Your task to perform on an android device: Open the calendar and show me this week's events? Image 0: 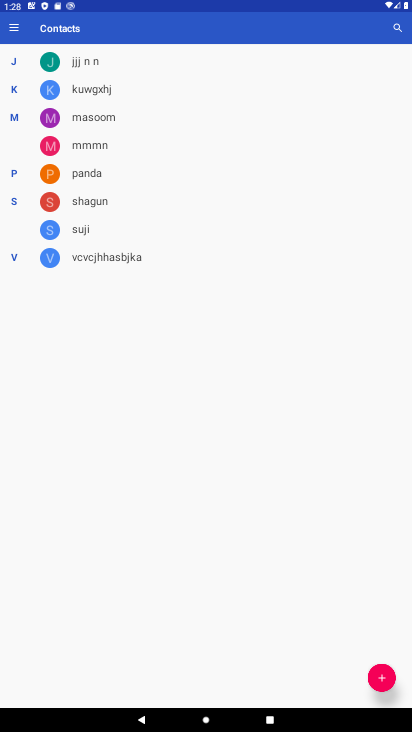
Step 0: press home button
Your task to perform on an android device: Open the calendar and show me this week's events? Image 1: 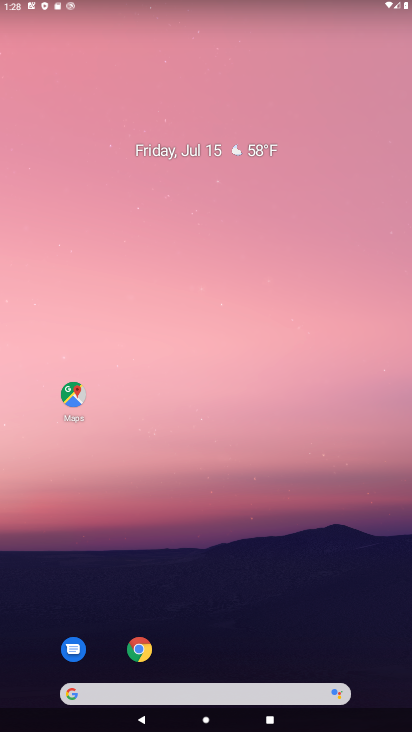
Step 1: drag from (269, 694) to (204, 152)
Your task to perform on an android device: Open the calendar and show me this week's events? Image 2: 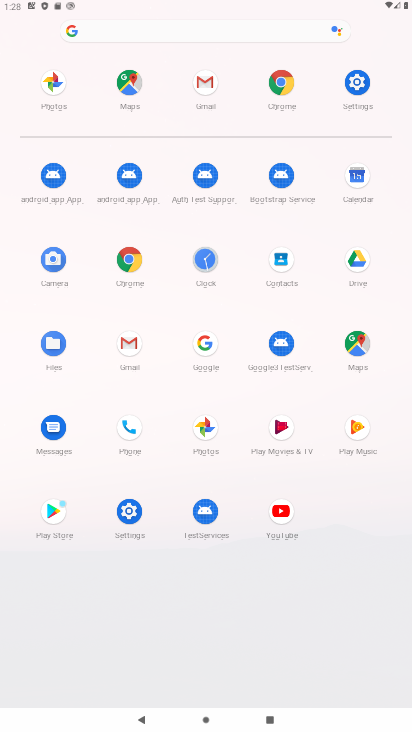
Step 2: click (365, 171)
Your task to perform on an android device: Open the calendar and show me this week's events? Image 3: 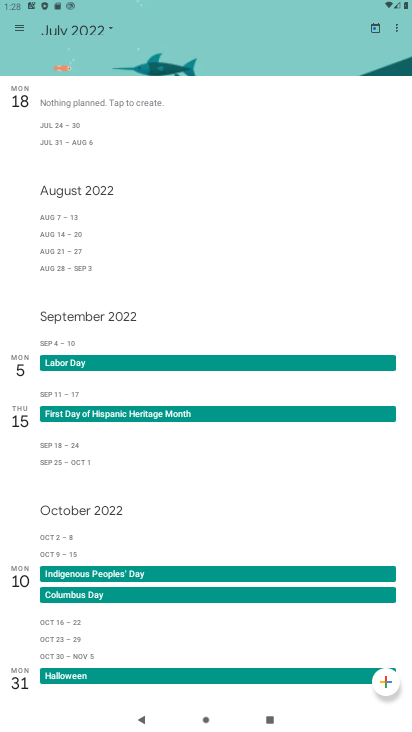
Step 3: click (103, 32)
Your task to perform on an android device: Open the calendar and show me this week's events? Image 4: 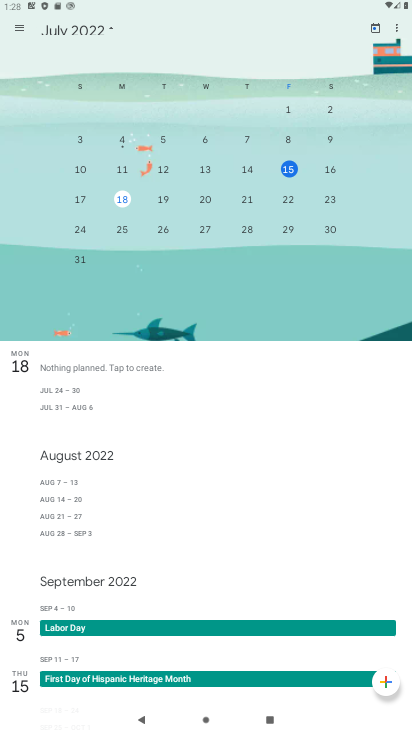
Step 4: drag from (351, 183) to (21, 331)
Your task to perform on an android device: Open the calendar and show me this week's events? Image 5: 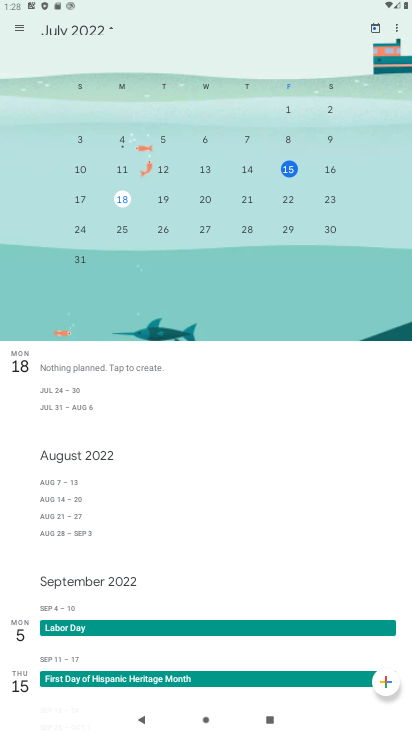
Step 5: drag from (322, 226) to (23, 254)
Your task to perform on an android device: Open the calendar and show me this week's events? Image 6: 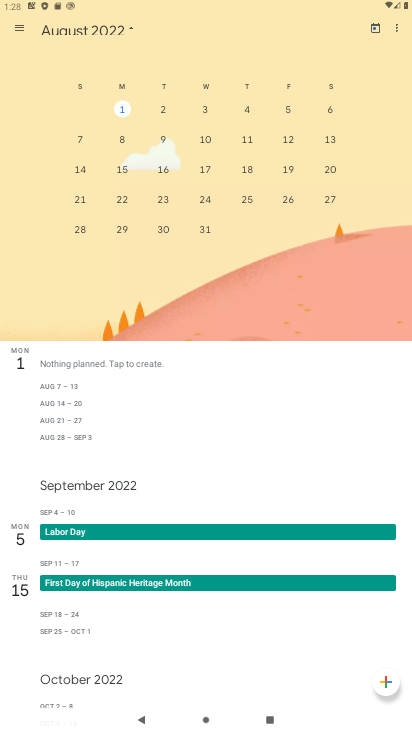
Step 6: drag from (72, 213) to (353, 210)
Your task to perform on an android device: Open the calendar and show me this week's events? Image 7: 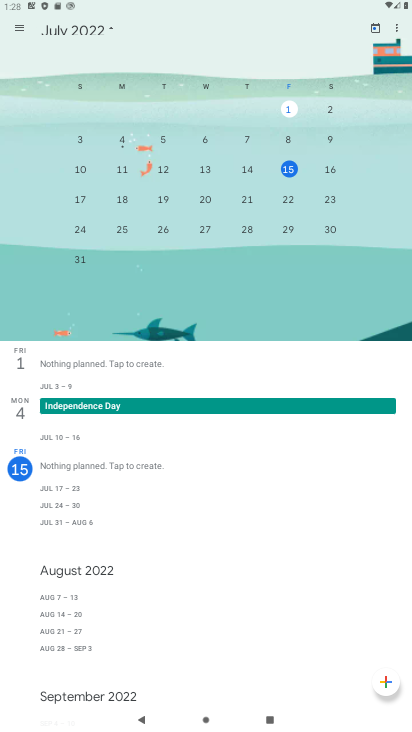
Step 7: click (10, 27)
Your task to perform on an android device: Open the calendar and show me this week's events? Image 8: 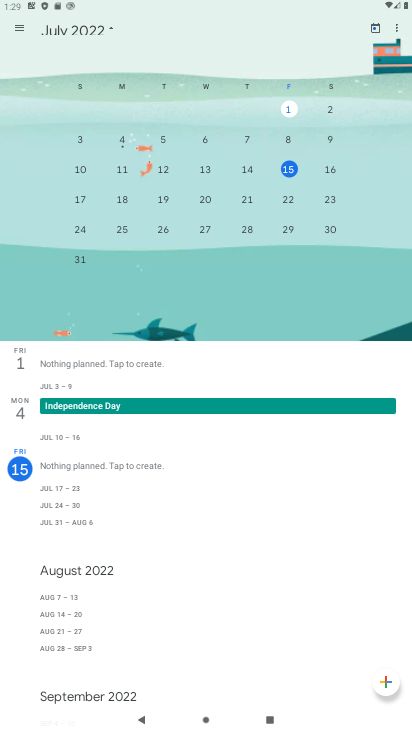
Step 8: click (19, 30)
Your task to perform on an android device: Open the calendar and show me this week's events? Image 9: 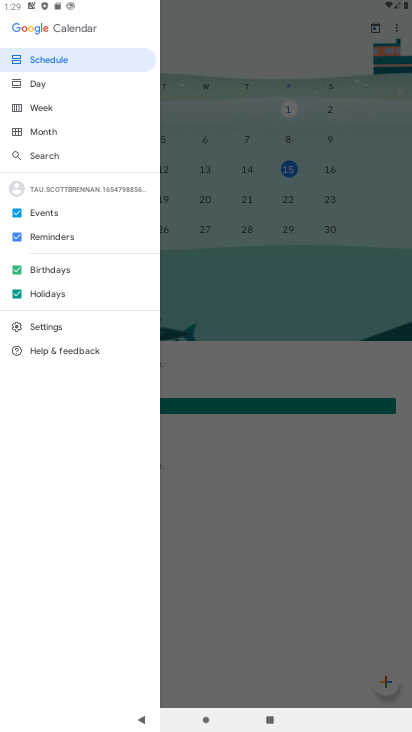
Step 9: click (48, 107)
Your task to perform on an android device: Open the calendar and show me this week's events? Image 10: 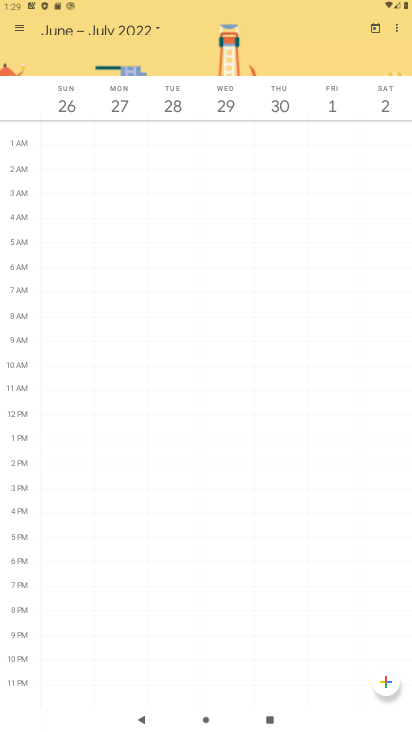
Step 10: task complete